Your task to perform on an android device: turn off notifications settings in the gmail app Image 0: 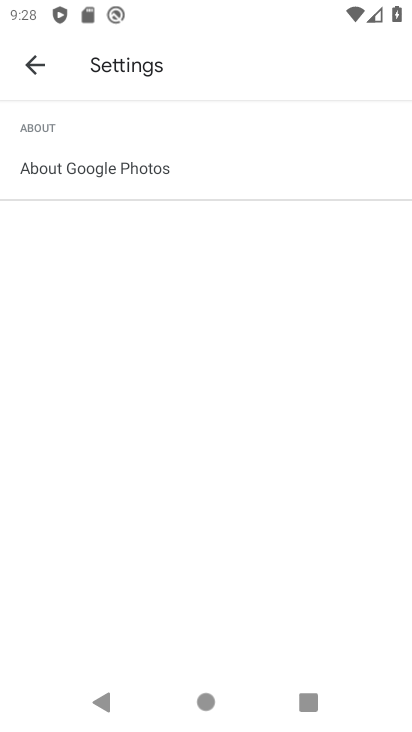
Step 0: press home button
Your task to perform on an android device: turn off notifications settings in the gmail app Image 1: 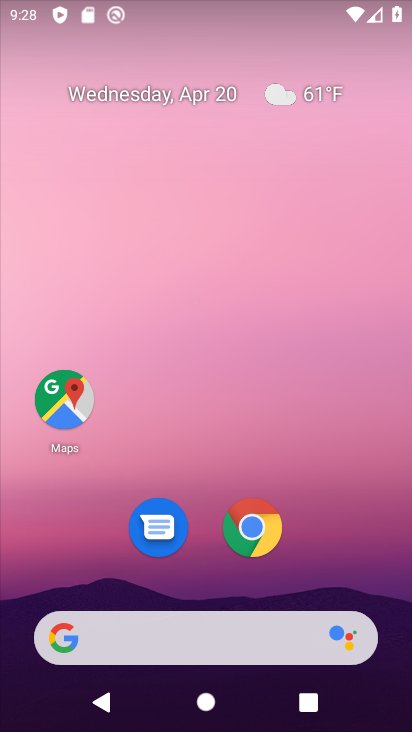
Step 1: drag from (214, 481) to (219, 16)
Your task to perform on an android device: turn off notifications settings in the gmail app Image 2: 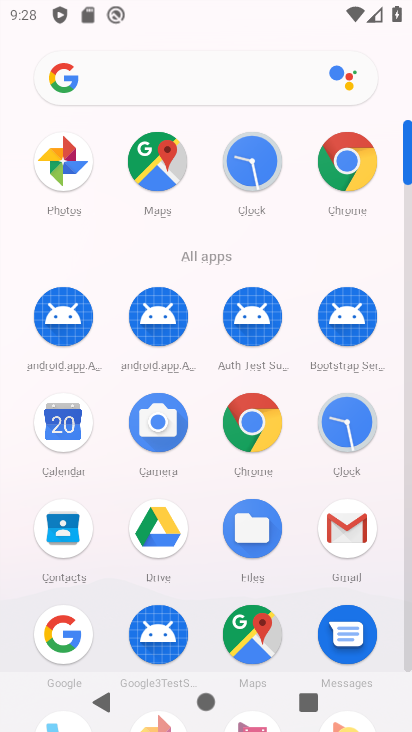
Step 2: click (342, 527)
Your task to perform on an android device: turn off notifications settings in the gmail app Image 3: 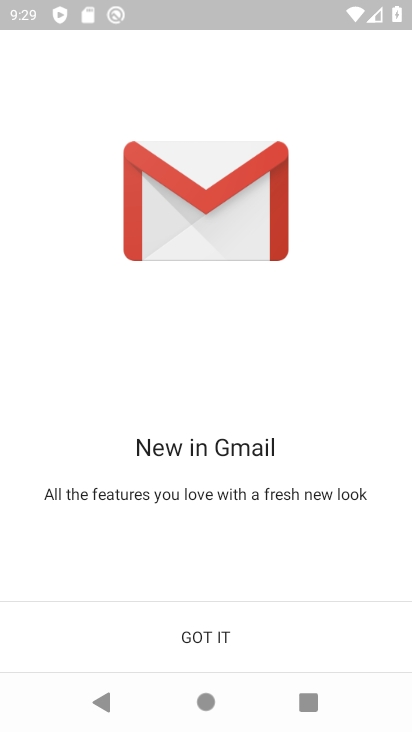
Step 3: click (206, 633)
Your task to perform on an android device: turn off notifications settings in the gmail app Image 4: 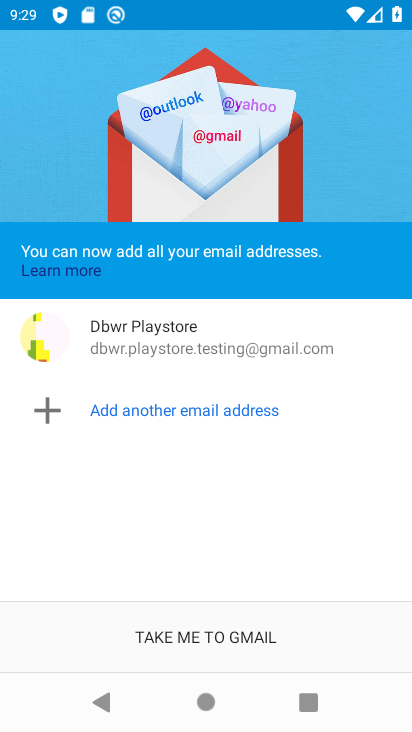
Step 4: click (206, 633)
Your task to perform on an android device: turn off notifications settings in the gmail app Image 5: 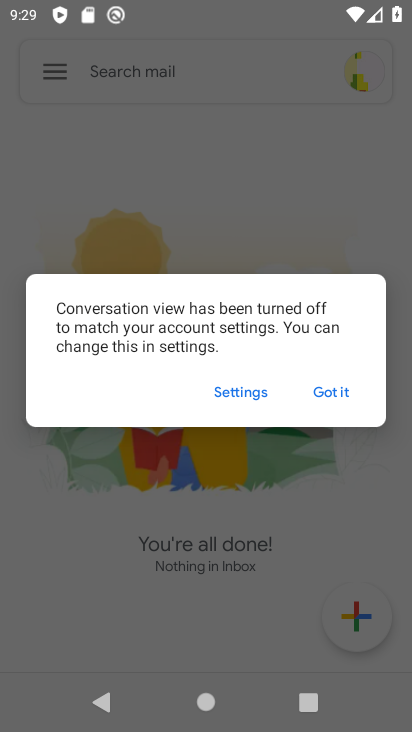
Step 5: click (329, 393)
Your task to perform on an android device: turn off notifications settings in the gmail app Image 6: 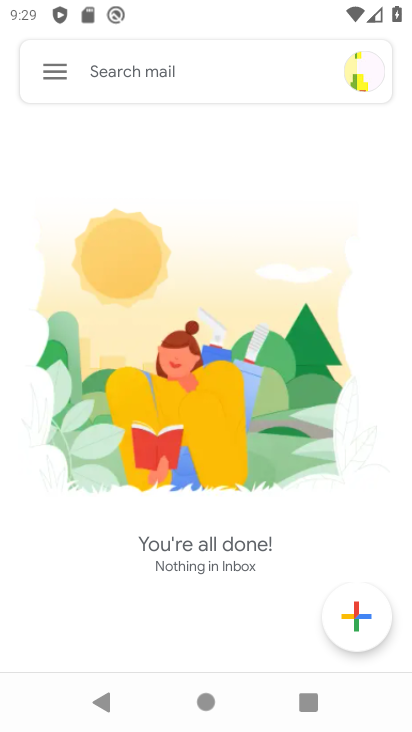
Step 6: click (57, 70)
Your task to perform on an android device: turn off notifications settings in the gmail app Image 7: 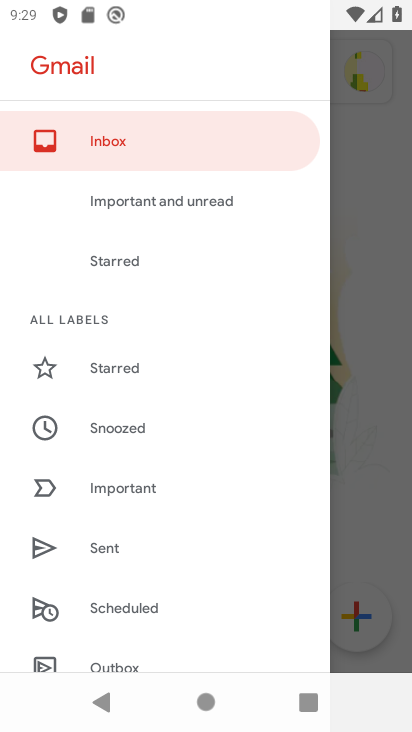
Step 7: drag from (257, 623) to (247, 317)
Your task to perform on an android device: turn off notifications settings in the gmail app Image 8: 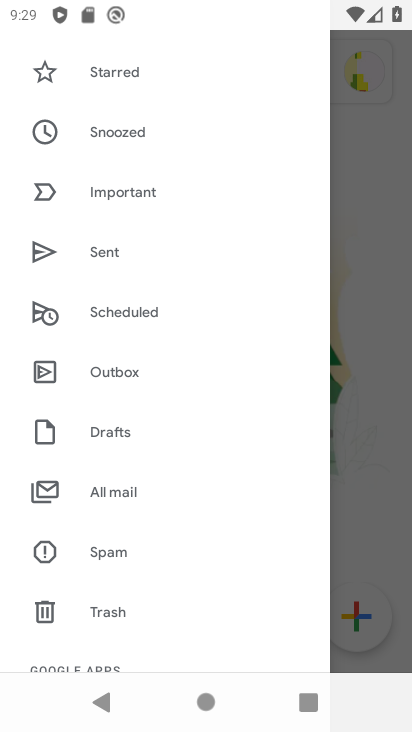
Step 8: drag from (201, 607) to (195, 271)
Your task to perform on an android device: turn off notifications settings in the gmail app Image 9: 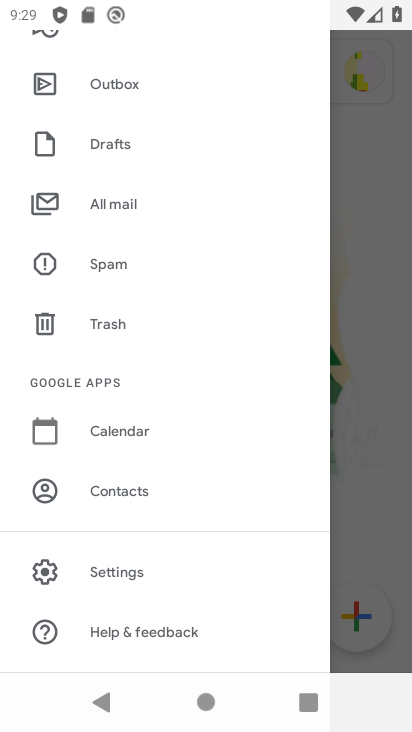
Step 9: click (117, 568)
Your task to perform on an android device: turn off notifications settings in the gmail app Image 10: 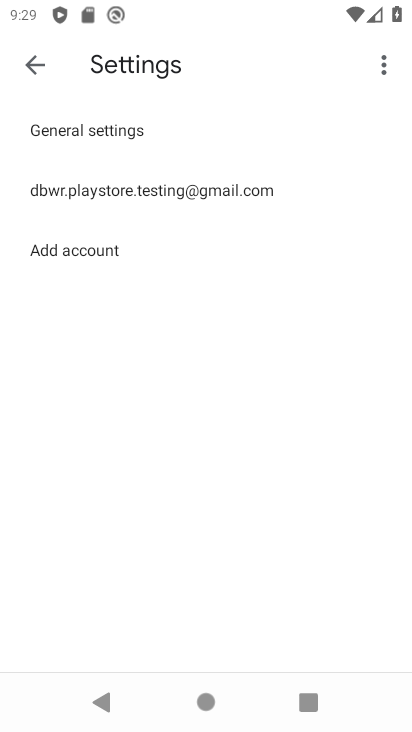
Step 10: click (101, 126)
Your task to perform on an android device: turn off notifications settings in the gmail app Image 11: 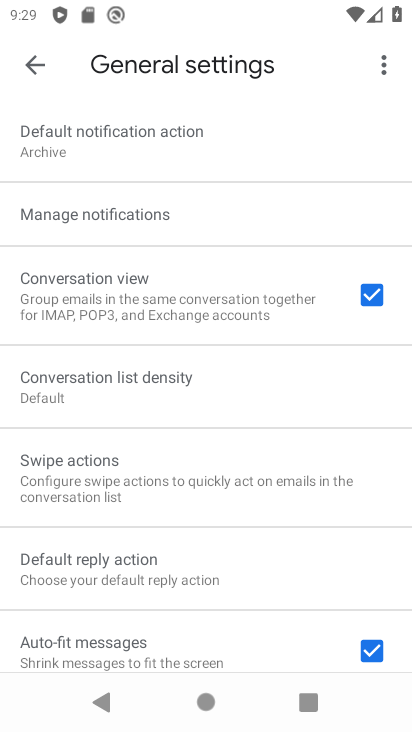
Step 11: click (111, 213)
Your task to perform on an android device: turn off notifications settings in the gmail app Image 12: 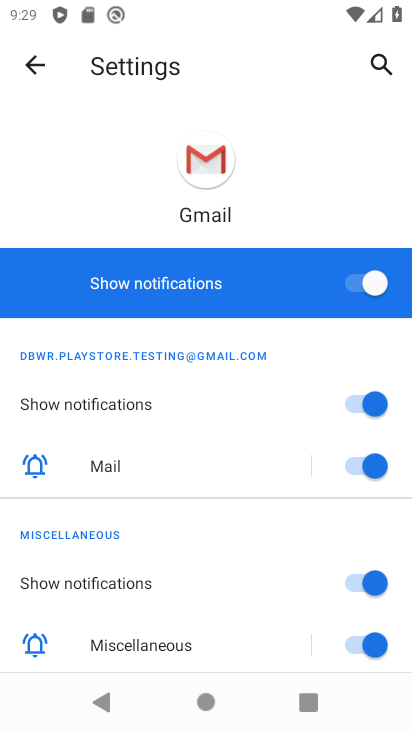
Step 12: click (370, 278)
Your task to perform on an android device: turn off notifications settings in the gmail app Image 13: 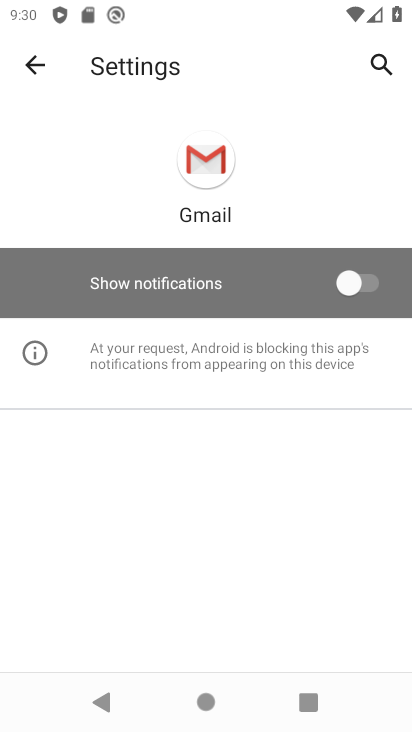
Step 13: task complete